Your task to perform on an android device: check out phone information Image 0: 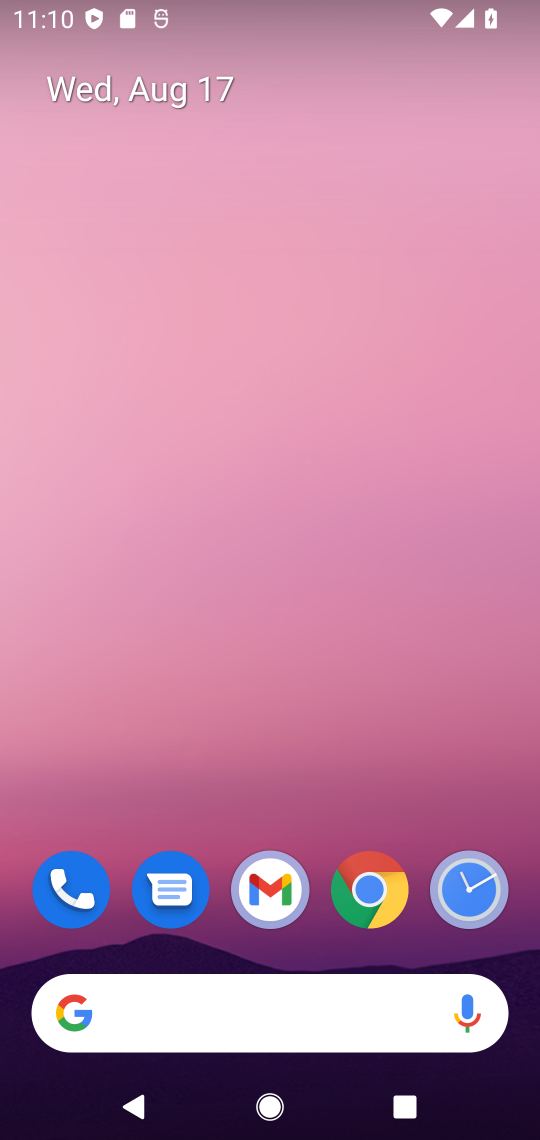
Step 0: click (59, 890)
Your task to perform on an android device: check out phone information Image 1: 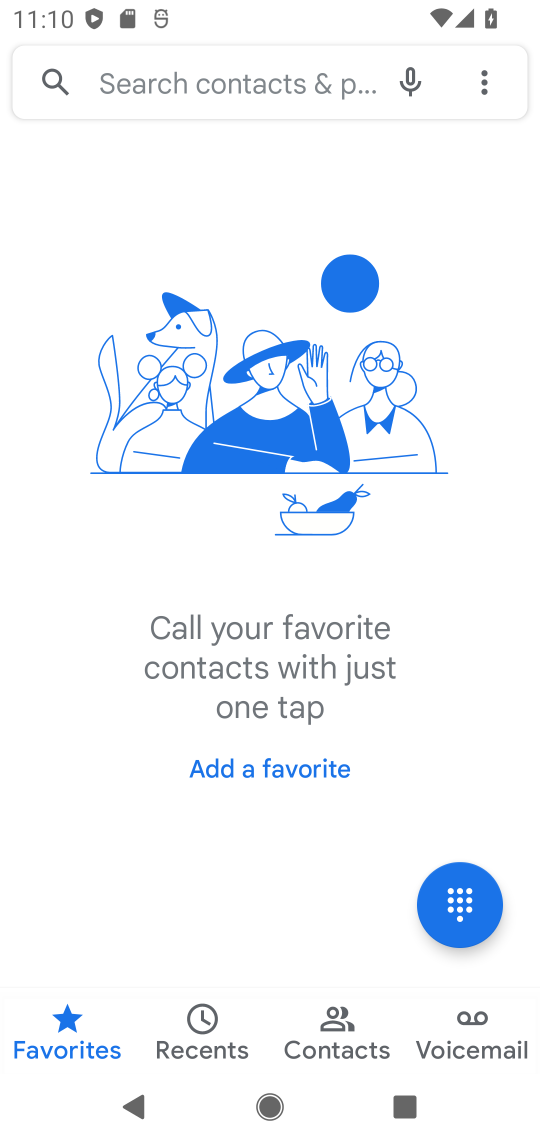
Step 1: click (489, 88)
Your task to perform on an android device: check out phone information Image 2: 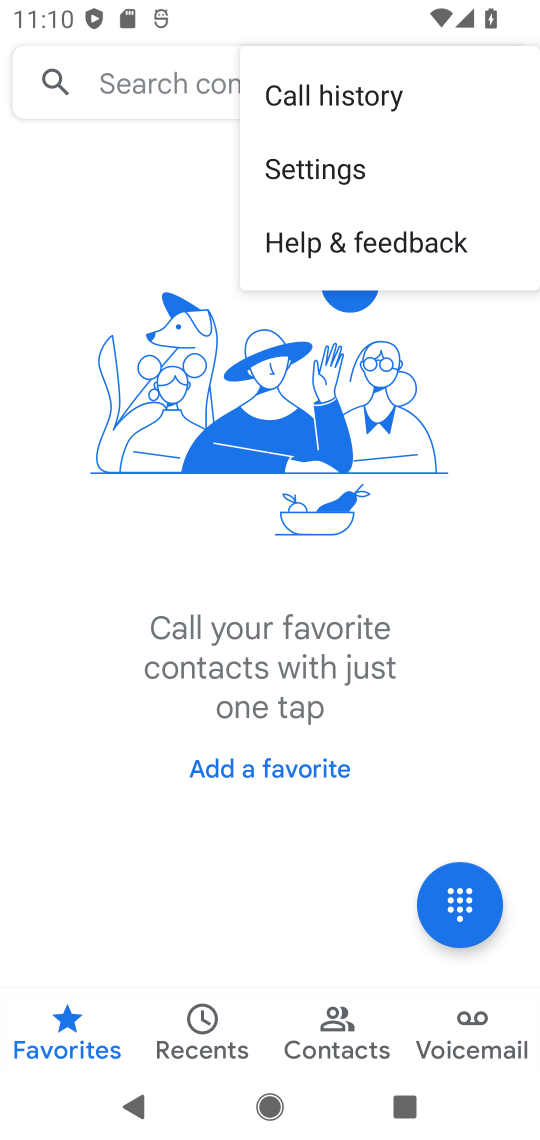
Step 2: click (377, 175)
Your task to perform on an android device: check out phone information Image 3: 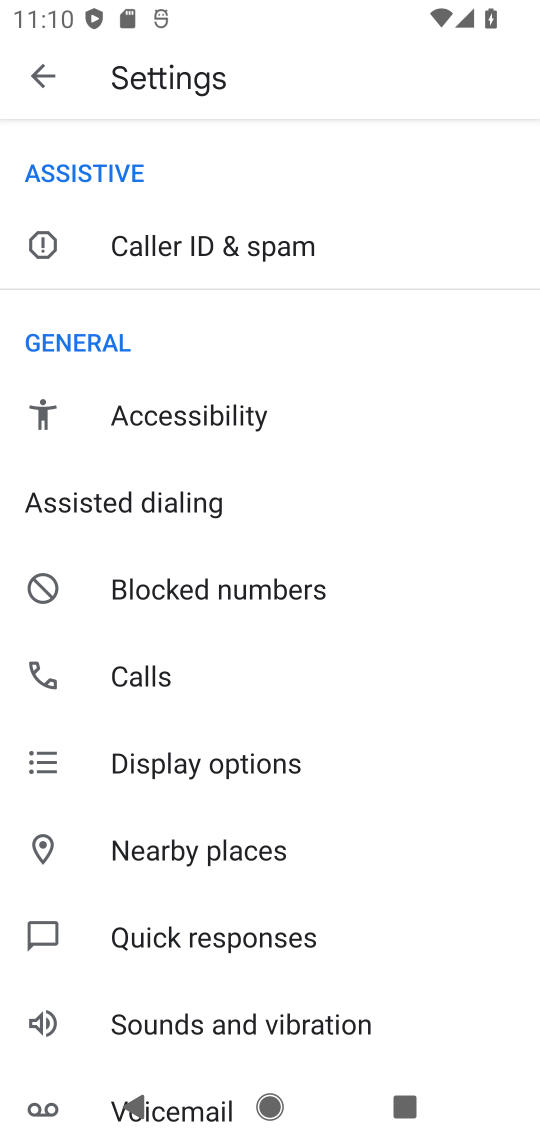
Step 3: drag from (197, 840) to (348, 0)
Your task to perform on an android device: check out phone information Image 4: 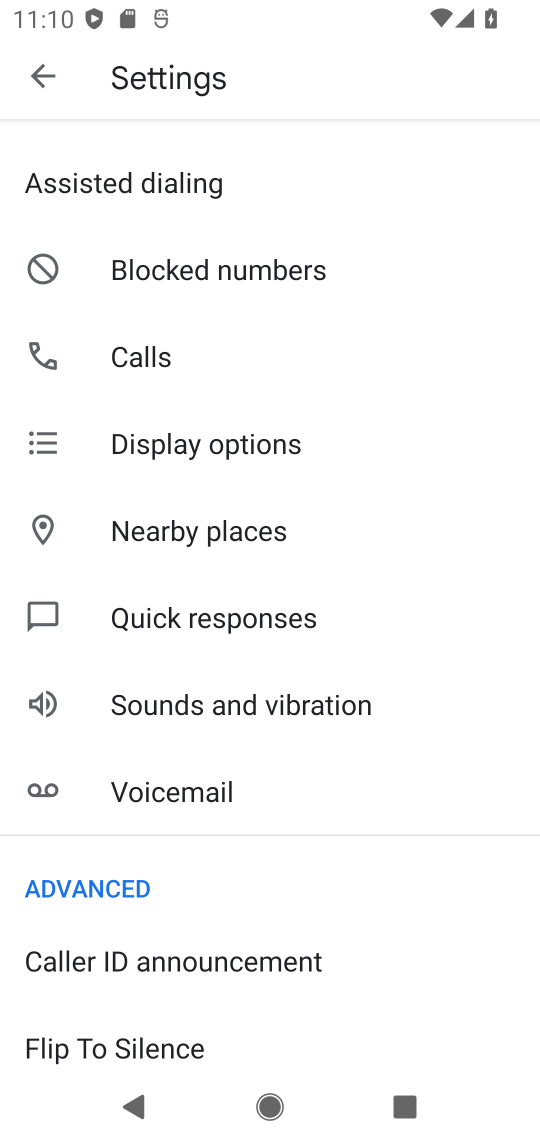
Step 4: drag from (307, 367) to (261, 940)
Your task to perform on an android device: check out phone information Image 5: 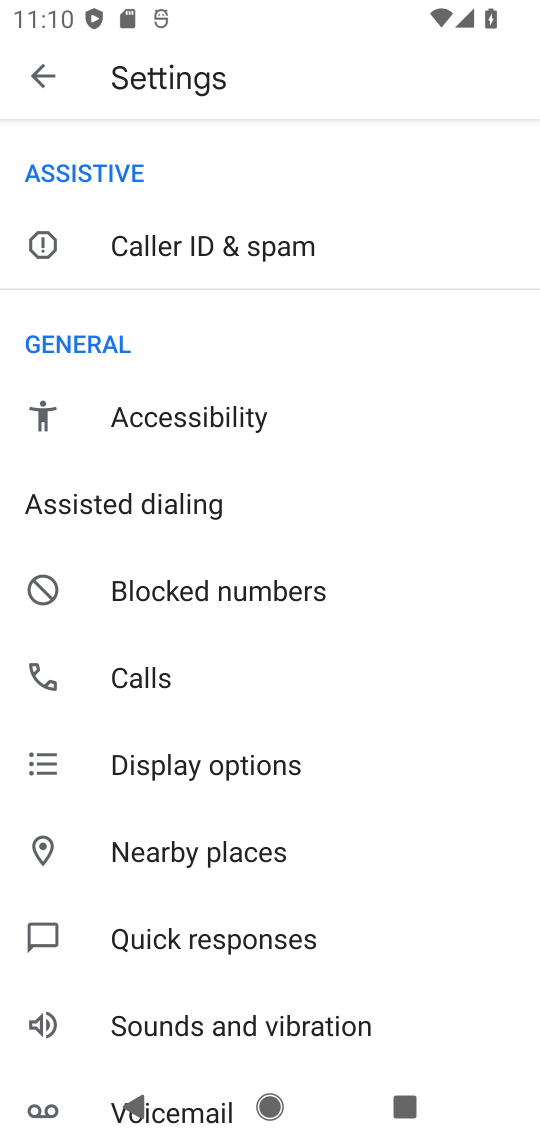
Step 5: click (294, 230)
Your task to perform on an android device: check out phone information Image 6: 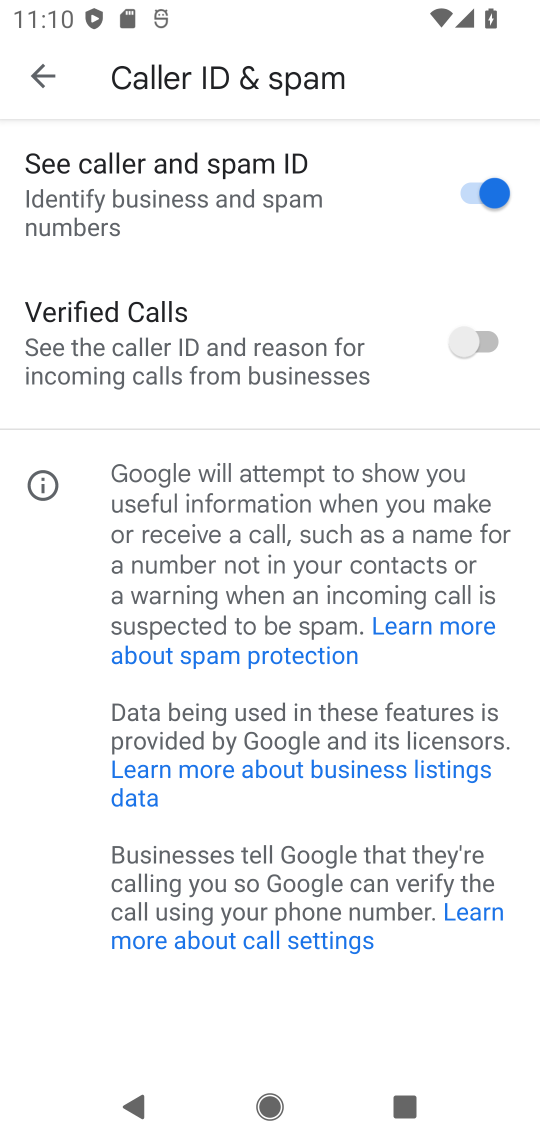
Step 6: click (51, 73)
Your task to perform on an android device: check out phone information Image 7: 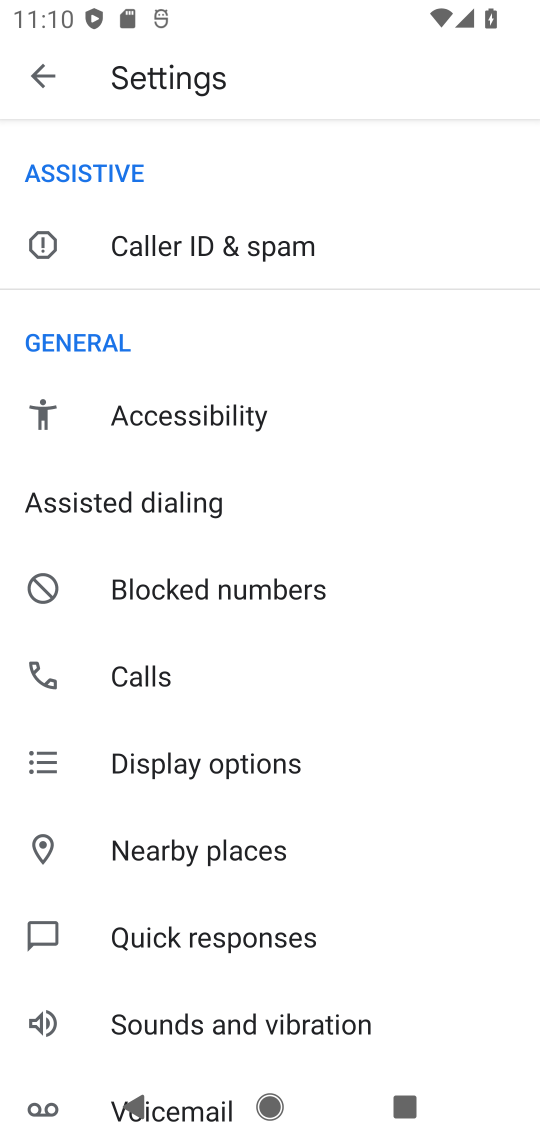
Step 7: task complete